Your task to perform on an android device: open app "Expedia: Hotels, Flights & Car" (install if not already installed) Image 0: 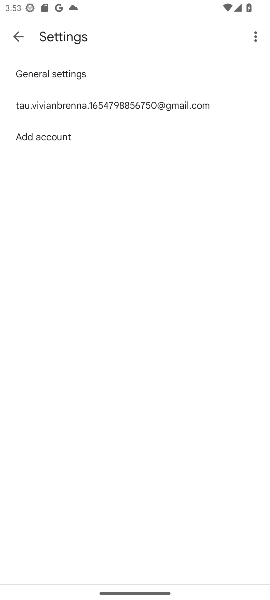
Step 0: press home button
Your task to perform on an android device: open app "Expedia: Hotels, Flights & Car" (install if not already installed) Image 1: 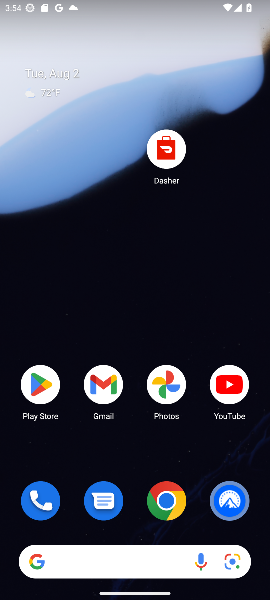
Step 1: click (42, 387)
Your task to perform on an android device: open app "Expedia: Hotels, Flights & Car" (install if not already installed) Image 2: 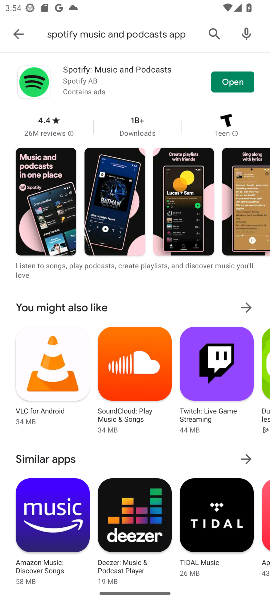
Step 2: click (209, 30)
Your task to perform on an android device: open app "Expedia: Hotels, Flights & Car" (install if not already installed) Image 3: 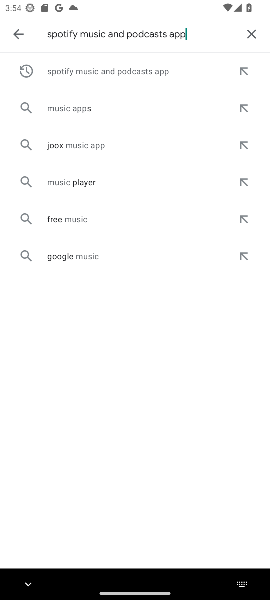
Step 3: click (249, 35)
Your task to perform on an android device: open app "Expedia: Hotels, Flights & Car" (install if not already installed) Image 4: 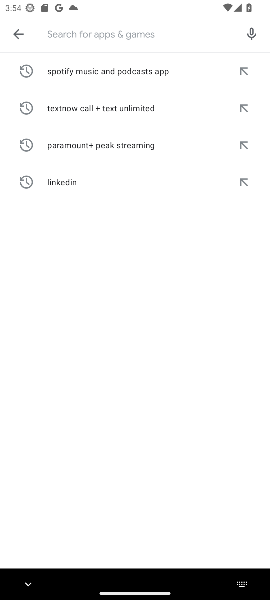
Step 4: type "Expedia: Hotels, Flights & Car"
Your task to perform on an android device: open app "Expedia: Hotels, Flights & Car" (install if not already installed) Image 5: 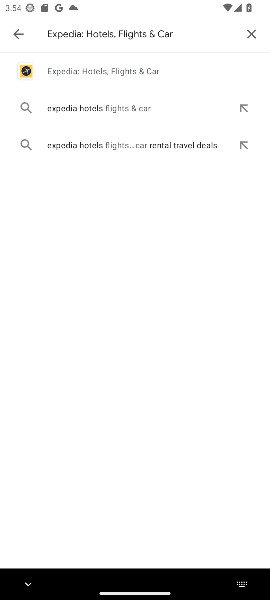
Step 5: click (111, 74)
Your task to perform on an android device: open app "Expedia: Hotels, Flights & Car" (install if not already installed) Image 6: 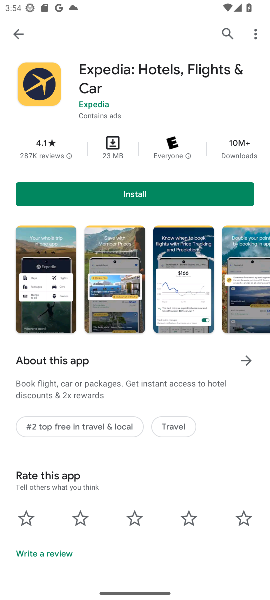
Step 6: click (133, 195)
Your task to perform on an android device: open app "Expedia: Hotels, Flights & Car" (install if not already installed) Image 7: 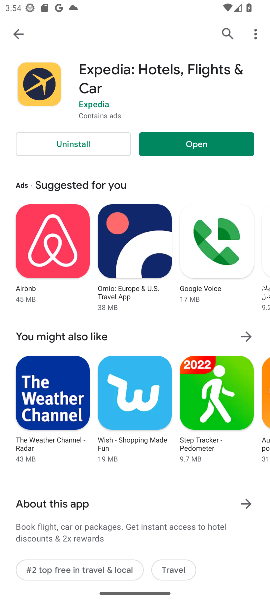
Step 7: click (170, 137)
Your task to perform on an android device: open app "Expedia: Hotels, Flights & Car" (install if not already installed) Image 8: 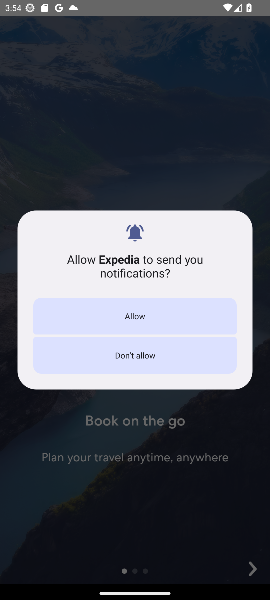
Step 8: task complete